Your task to perform on an android device: Open Google Maps Image 0: 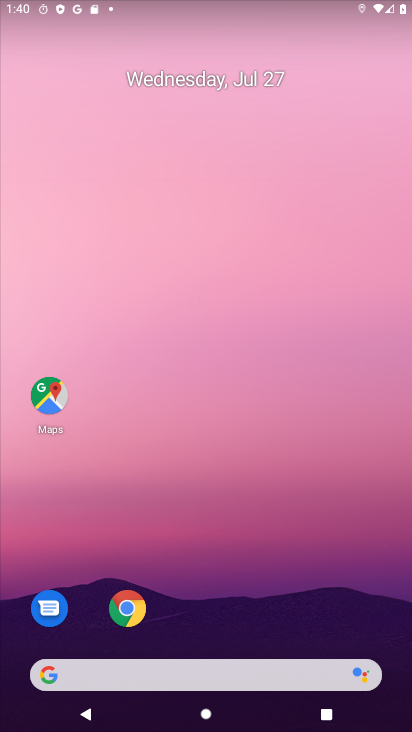
Step 0: click (47, 393)
Your task to perform on an android device: Open Google Maps Image 1: 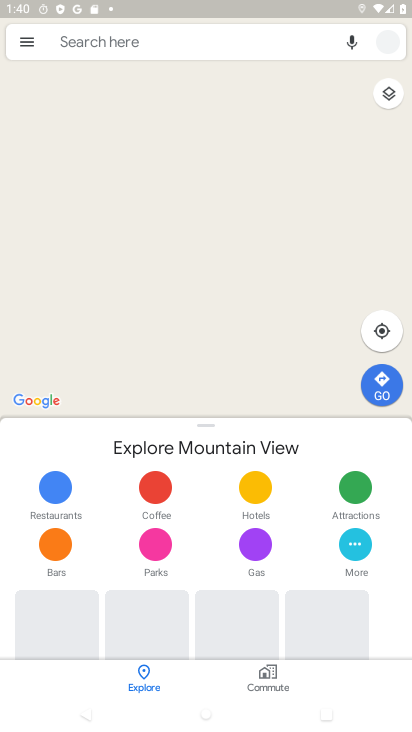
Step 1: task complete